Your task to perform on an android device: Open battery settings Image 0: 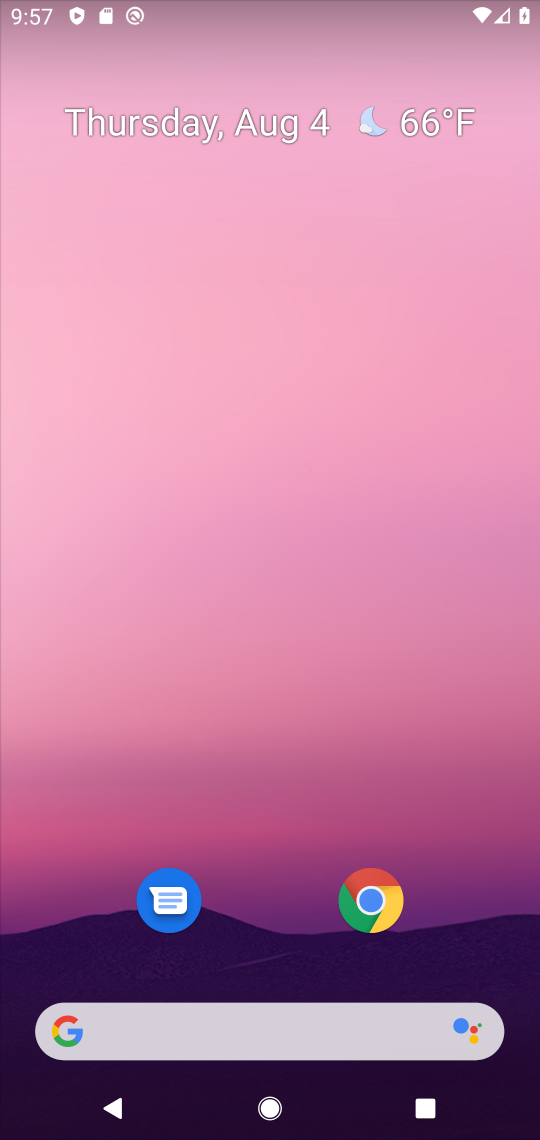
Step 0: drag from (485, 950) to (252, 160)
Your task to perform on an android device: Open battery settings Image 1: 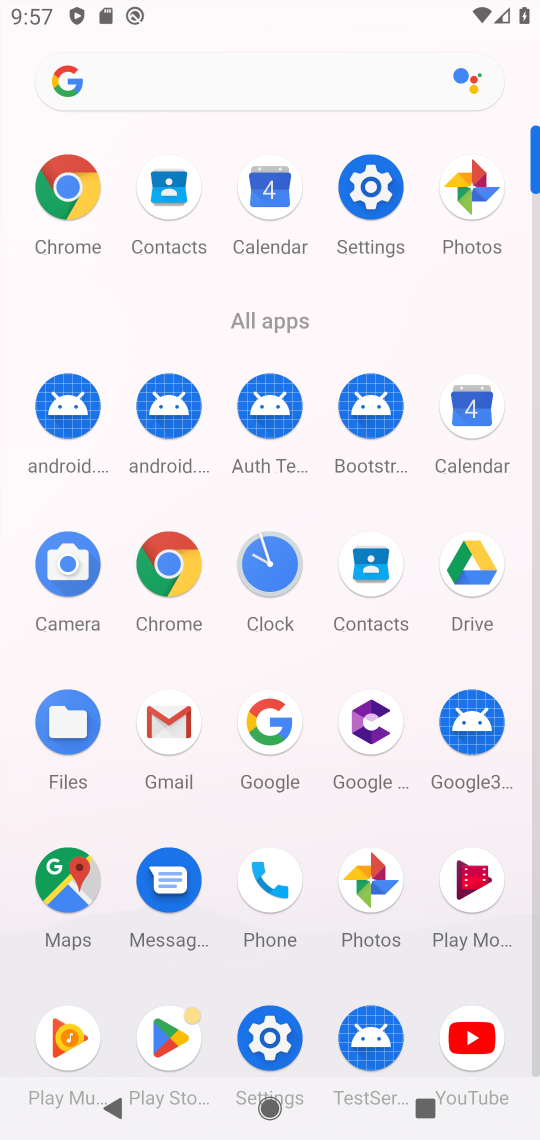
Step 1: click (366, 188)
Your task to perform on an android device: Open battery settings Image 2: 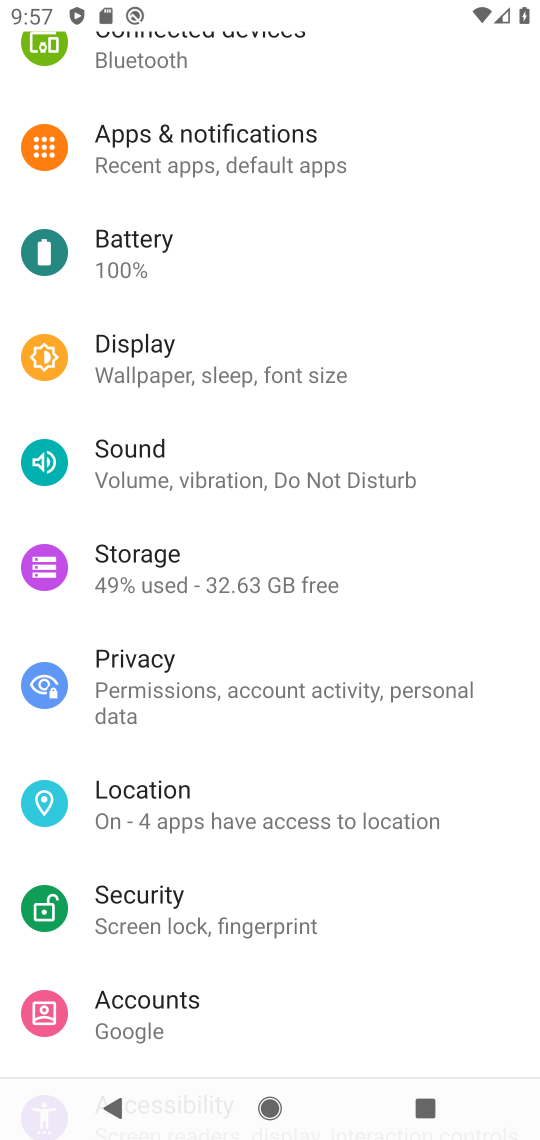
Step 2: click (341, 230)
Your task to perform on an android device: Open battery settings Image 3: 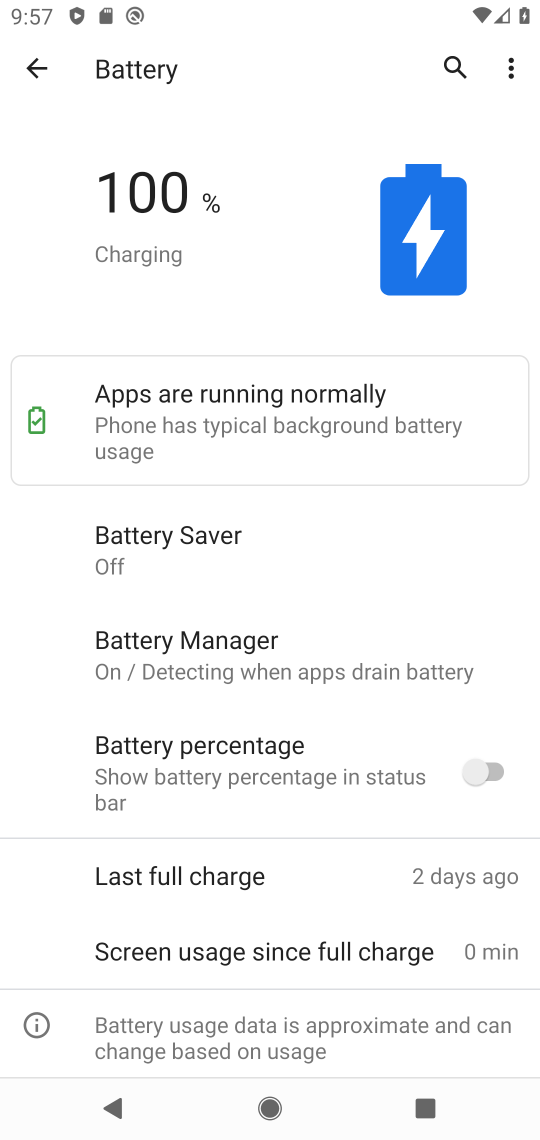
Step 3: task complete